Your task to perform on an android device: Open settings on Google Maps Image 0: 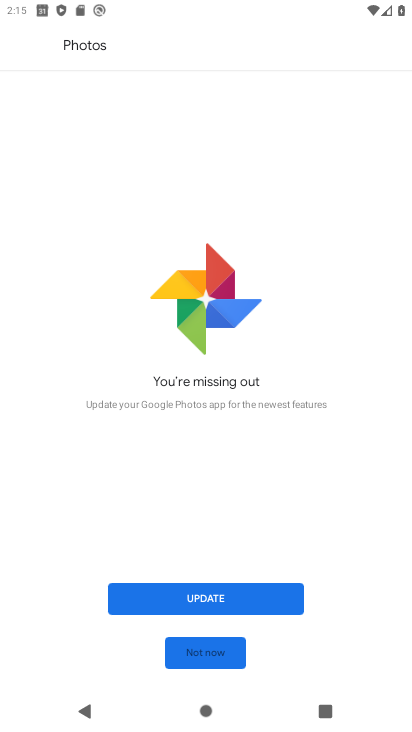
Step 0: press home button
Your task to perform on an android device: Open settings on Google Maps Image 1: 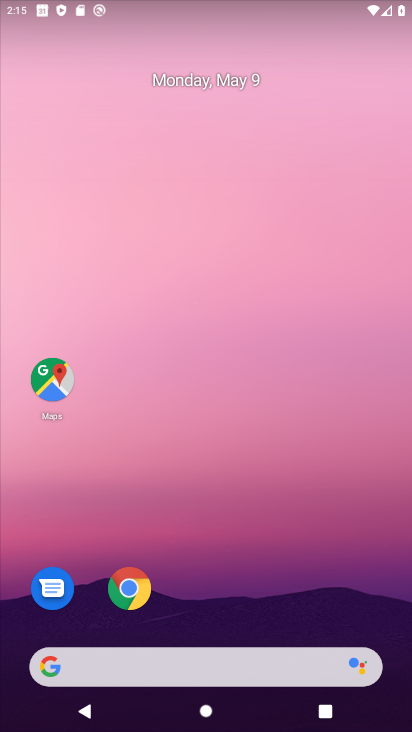
Step 1: drag from (351, 618) to (257, 36)
Your task to perform on an android device: Open settings on Google Maps Image 2: 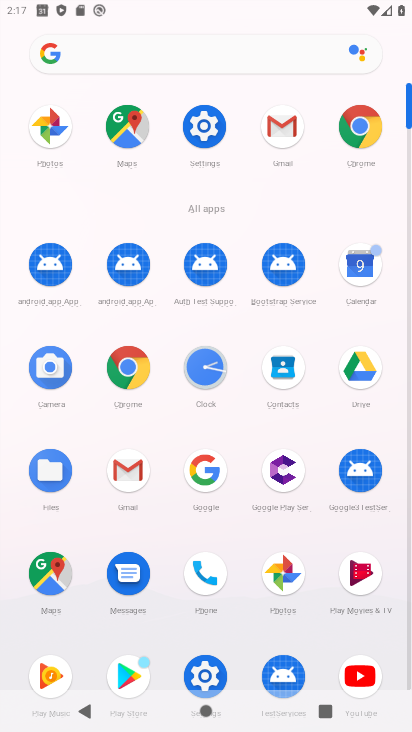
Step 2: click (201, 664)
Your task to perform on an android device: Open settings on Google Maps Image 3: 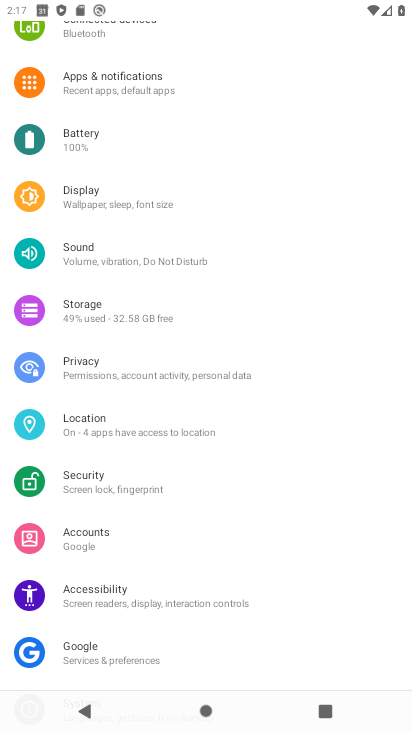
Step 3: press home button
Your task to perform on an android device: Open settings on Google Maps Image 4: 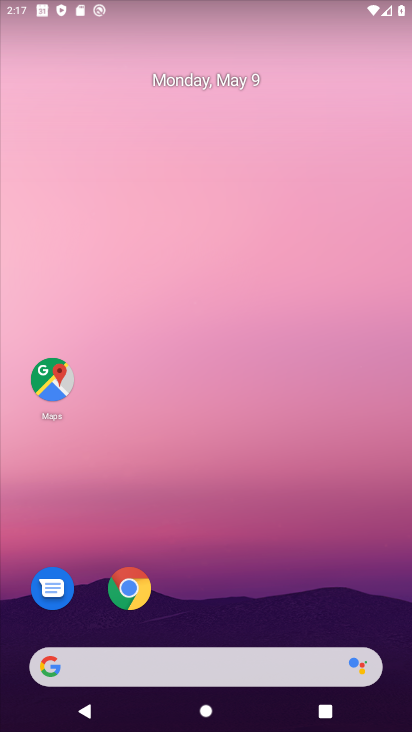
Step 4: click (47, 392)
Your task to perform on an android device: Open settings on Google Maps Image 5: 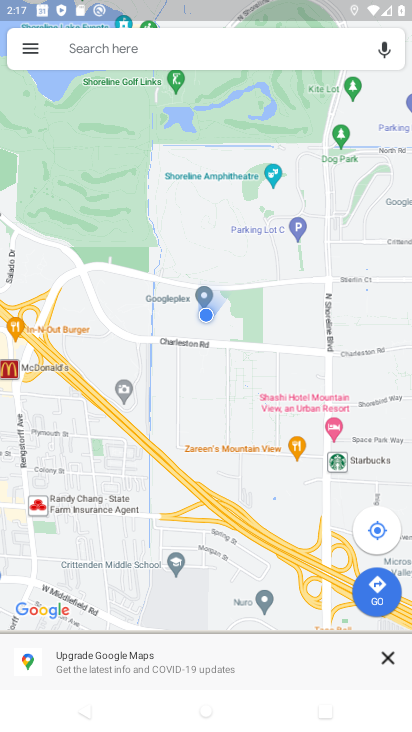
Step 5: click (32, 52)
Your task to perform on an android device: Open settings on Google Maps Image 6: 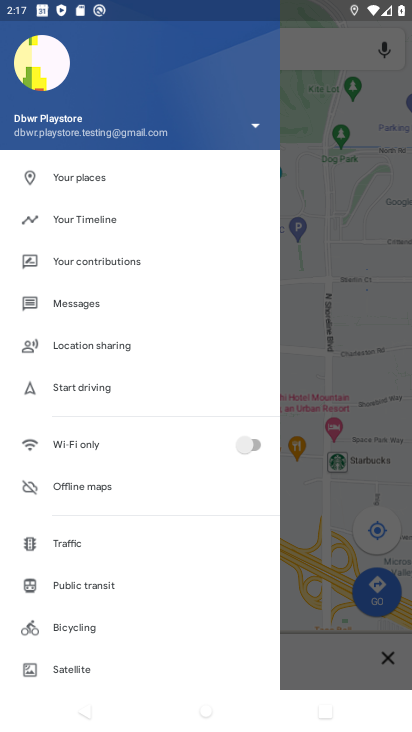
Step 6: drag from (172, 623) to (153, 222)
Your task to perform on an android device: Open settings on Google Maps Image 7: 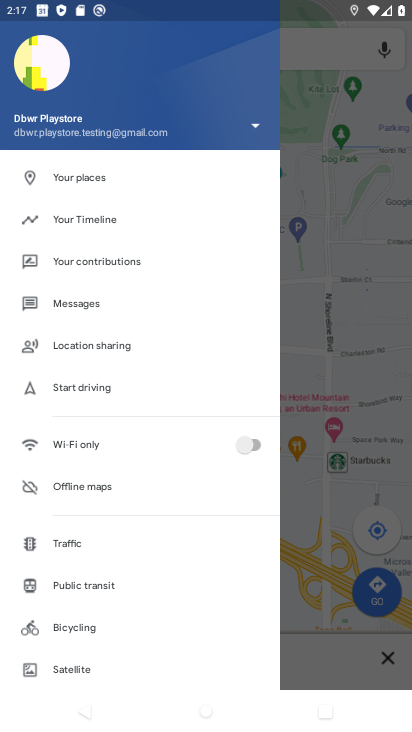
Step 7: drag from (133, 661) to (209, 254)
Your task to perform on an android device: Open settings on Google Maps Image 8: 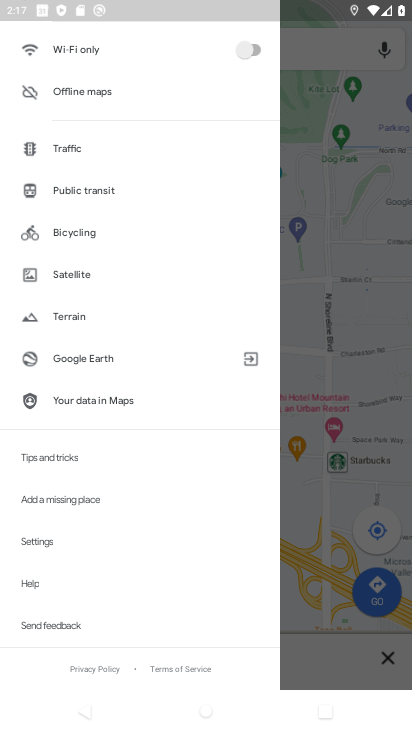
Step 8: click (87, 545)
Your task to perform on an android device: Open settings on Google Maps Image 9: 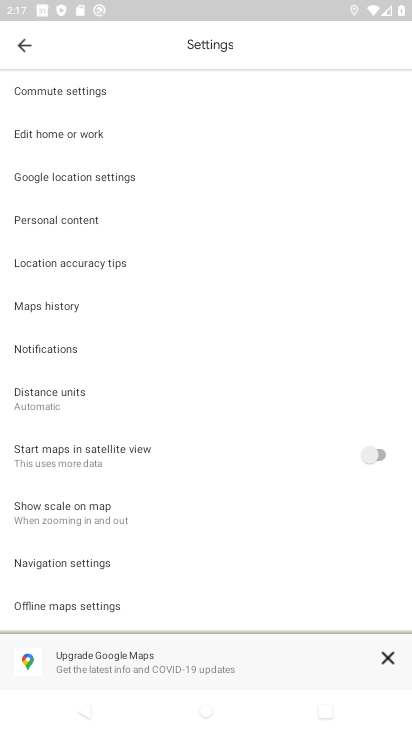
Step 9: task complete